Your task to perform on an android device: toggle data saver in the chrome app Image 0: 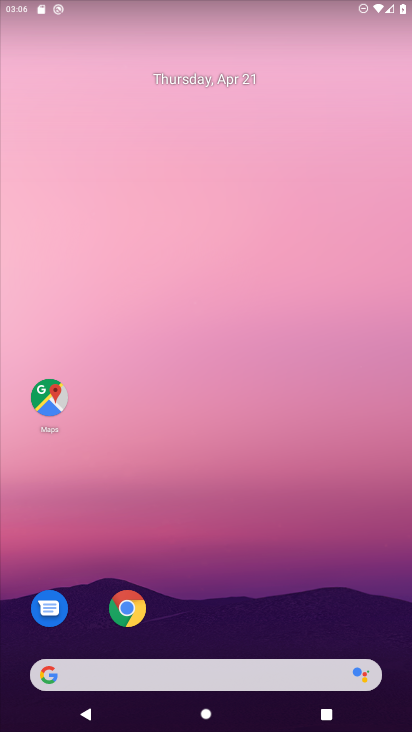
Step 0: click (129, 604)
Your task to perform on an android device: toggle data saver in the chrome app Image 1: 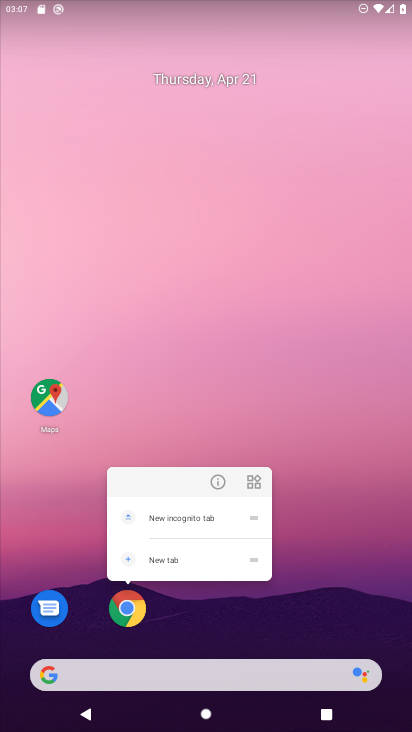
Step 1: click (365, 603)
Your task to perform on an android device: toggle data saver in the chrome app Image 2: 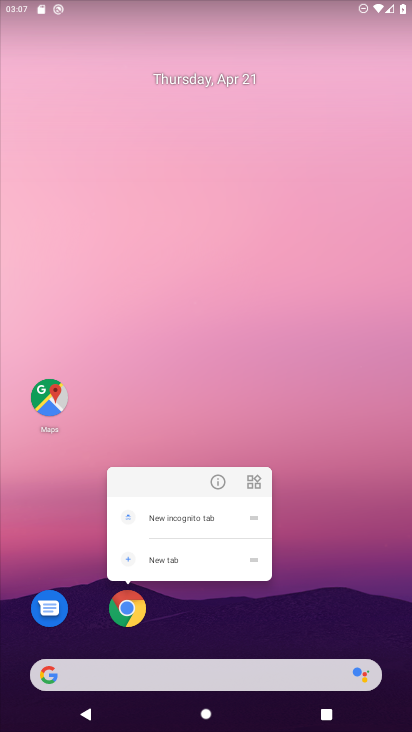
Step 2: drag from (328, 638) to (337, 221)
Your task to perform on an android device: toggle data saver in the chrome app Image 3: 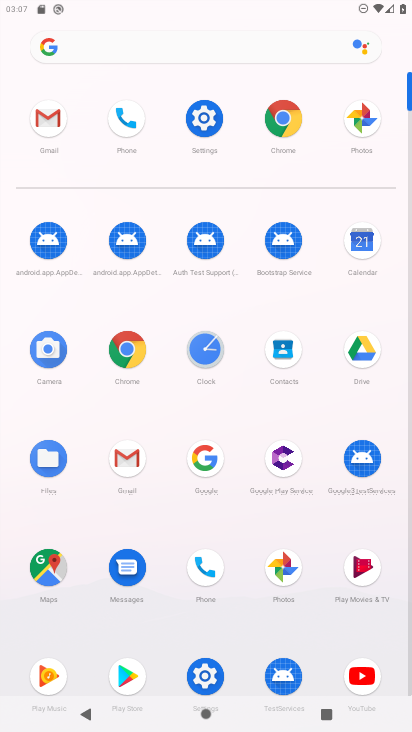
Step 3: click (122, 349)
Your task to perform on an android device: toggle data saver in the chrome app Image 4: 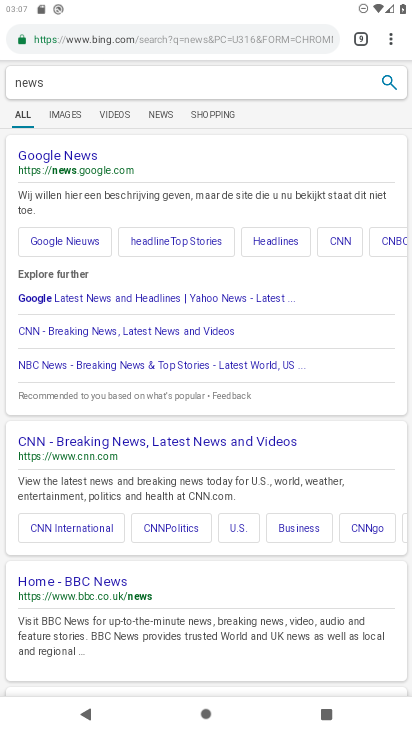
Step 4: click (382, 43)
Your task to perform on an android device: toggle data saver in the chrome app Image 5: 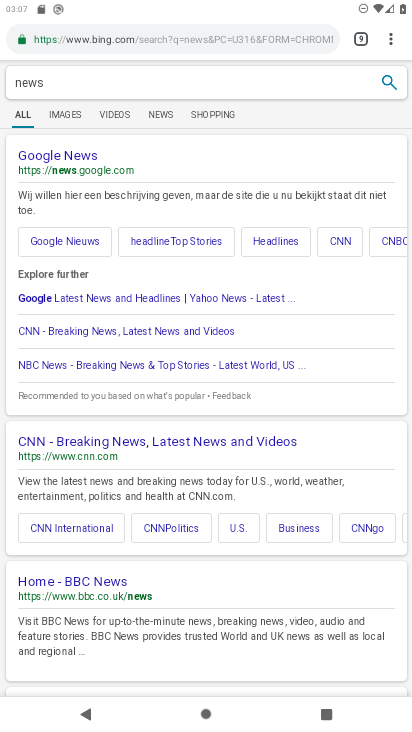
Step 5: click (389, 42)
Your task to perform on an android device: toggle data saver in the chrome app Image 6: 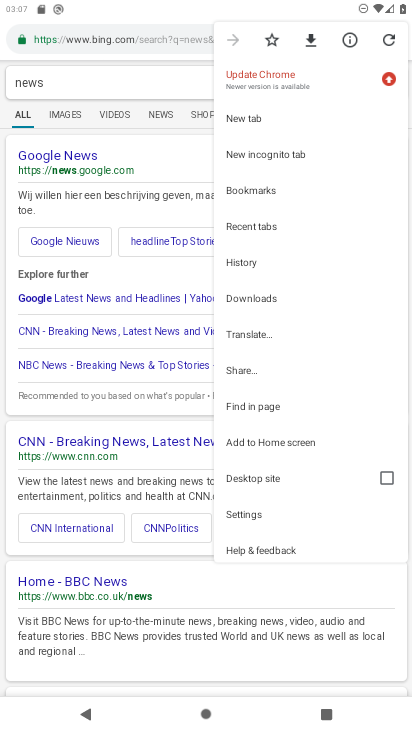
Step 6: click (256, 515)
Your task to perform on an android device: toggle data saver in the chrome app Image 7: 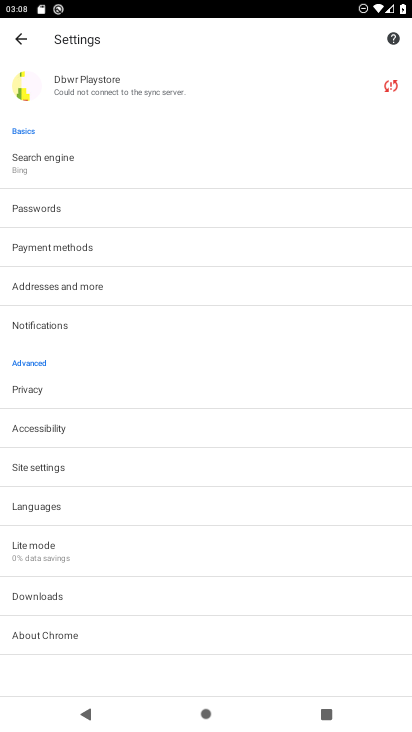
Step 7: click (93, 542)
Your task to perform on an android device: toggle data saver in the chrome app Image 8: 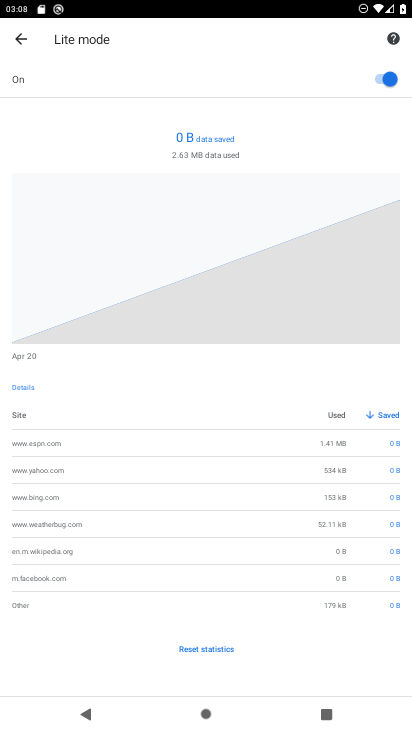
Step 8: click (379, 73)
Your task to perform on an android device: toggle data saver in the chrome app Image 9: 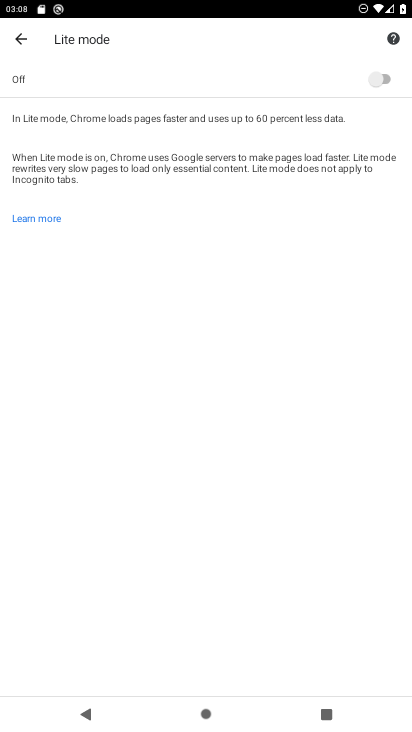
Step 9: task complete